Your task to perform on an android device: turn on sleep mode Image 0: 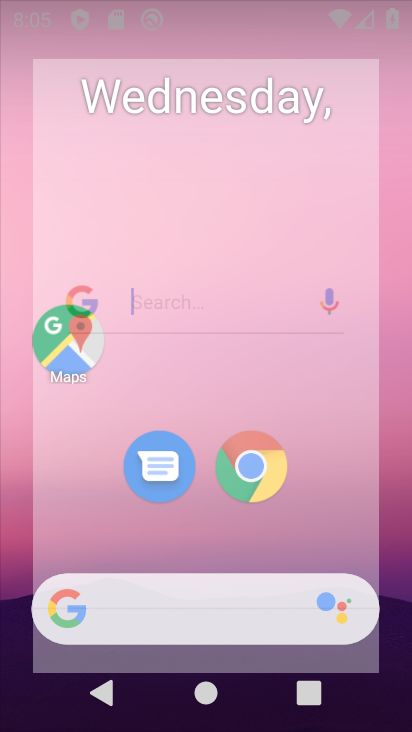
Step 0: task complete